Your task to perform on an android device: change alarm snooze length Image 0: 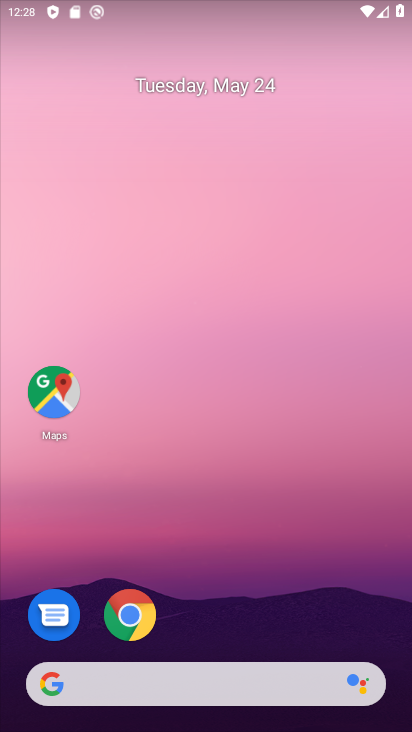
Step 0: drag from (227, 630) to (244, 107)
Your task to perform on an android device: change alarm snooze length Image 1: 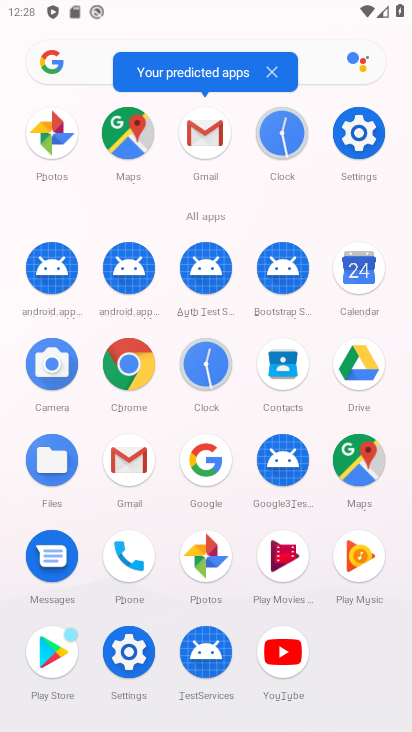
Step 1: click (283, 128)
Your task to perform on an android device: change alarm snooze length Image 2: 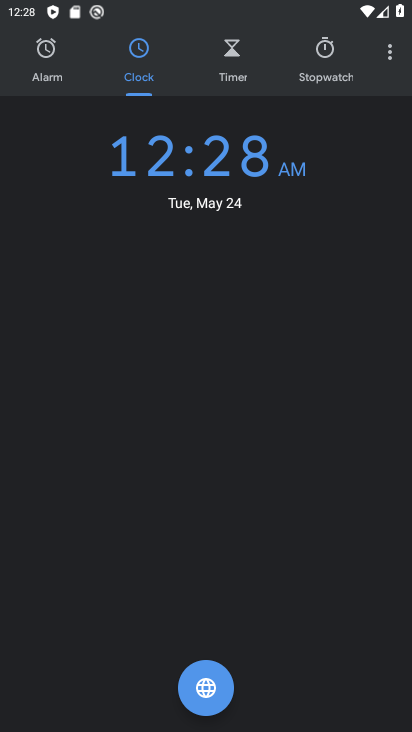
Step 2: click (386, 52)
Your task to perform on an android device: change alarm snooze length Image 3: 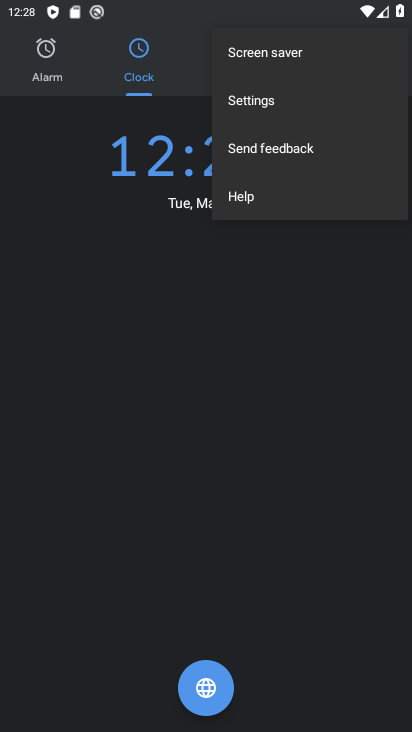
Step 3: click (279, 102)
Your task to perform on an android device: change alarm snooze length Image 4: 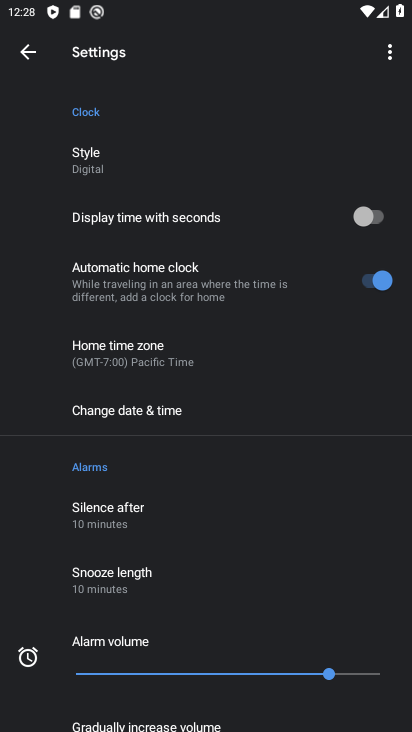
Step 4: click (157, 578)
Your task to perform on an android device: change alarm snooze length Image 5: 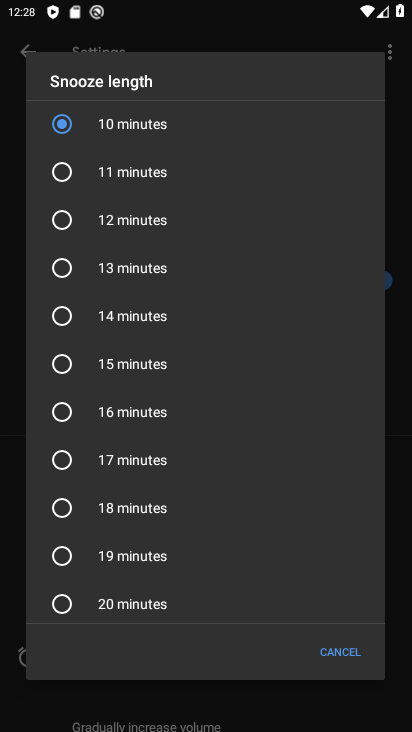
Step 5: drag from (119, 156) to (114, 495)
Your task to perform on an android device: change alarm snooze length Image 6: 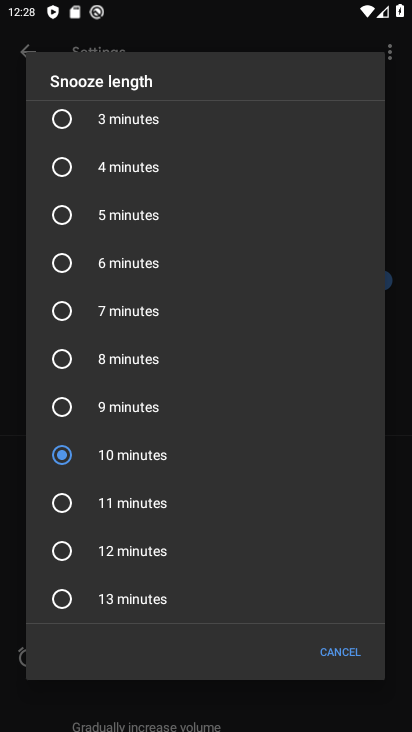
Step 6: click (58, 259)
Your task to perform on an android device: change alarm snooze length Image 7: 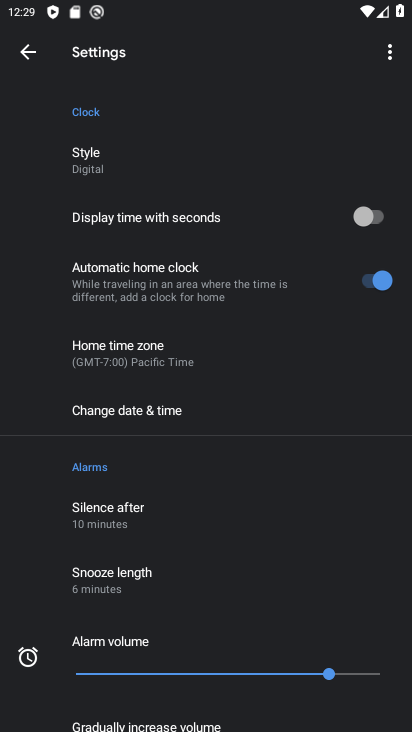
Step 7: task complete